Your task to perform on an android device: Play the new Bruno Mars video on YouTube Image 0: 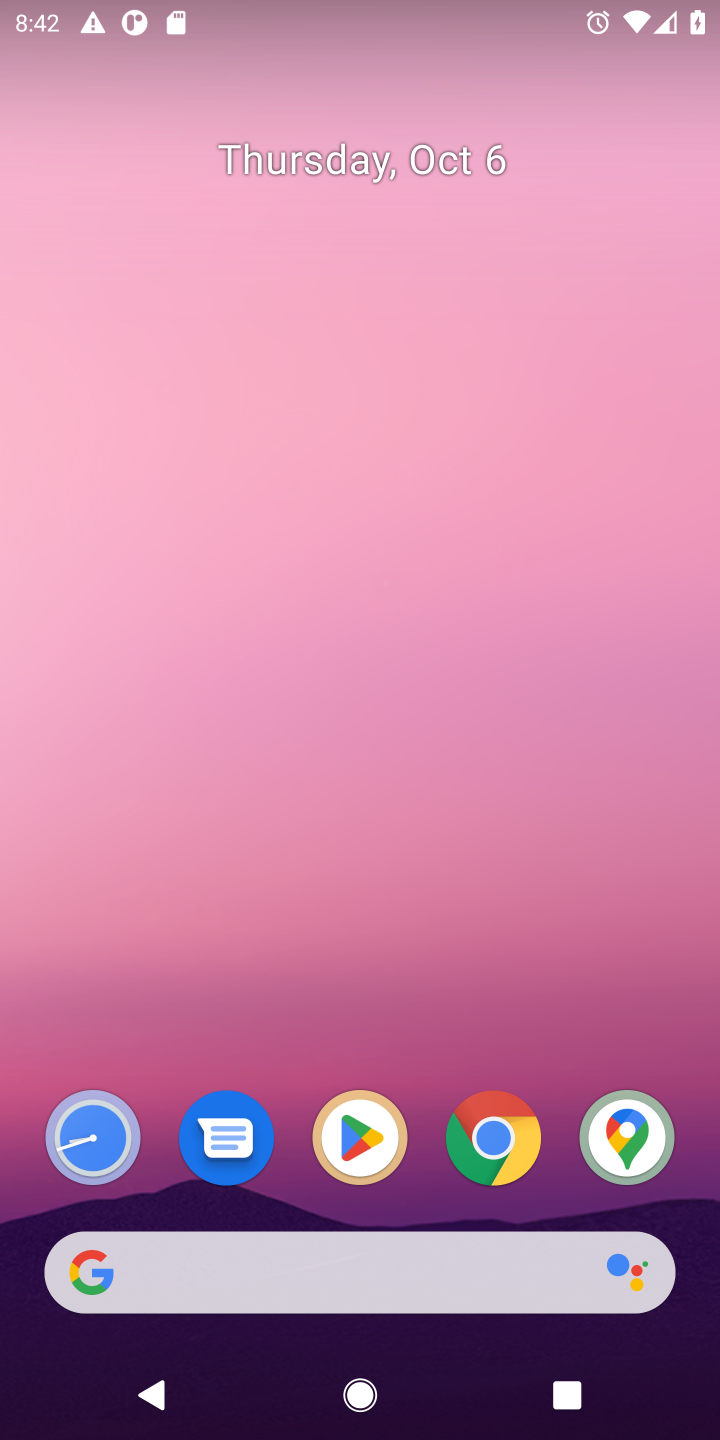
Step 0: drag from (284, 1179) to (426, 520)
Your task to perform on an android device: Play the new Bruno Mars video on YouTube Image 1: 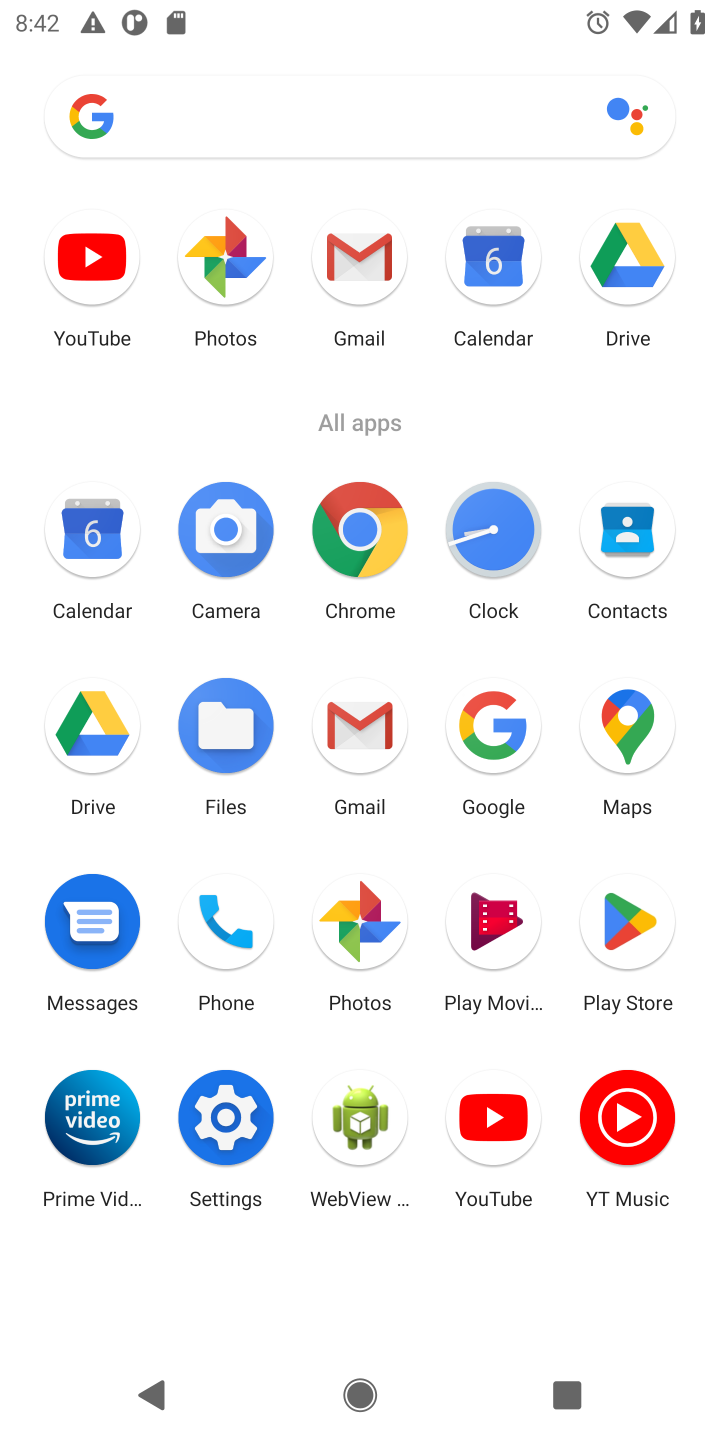
Step 1: click (101, 286)
Your task to perform on an android device: Play the new Bruno Mars video on YouTube Image 2: 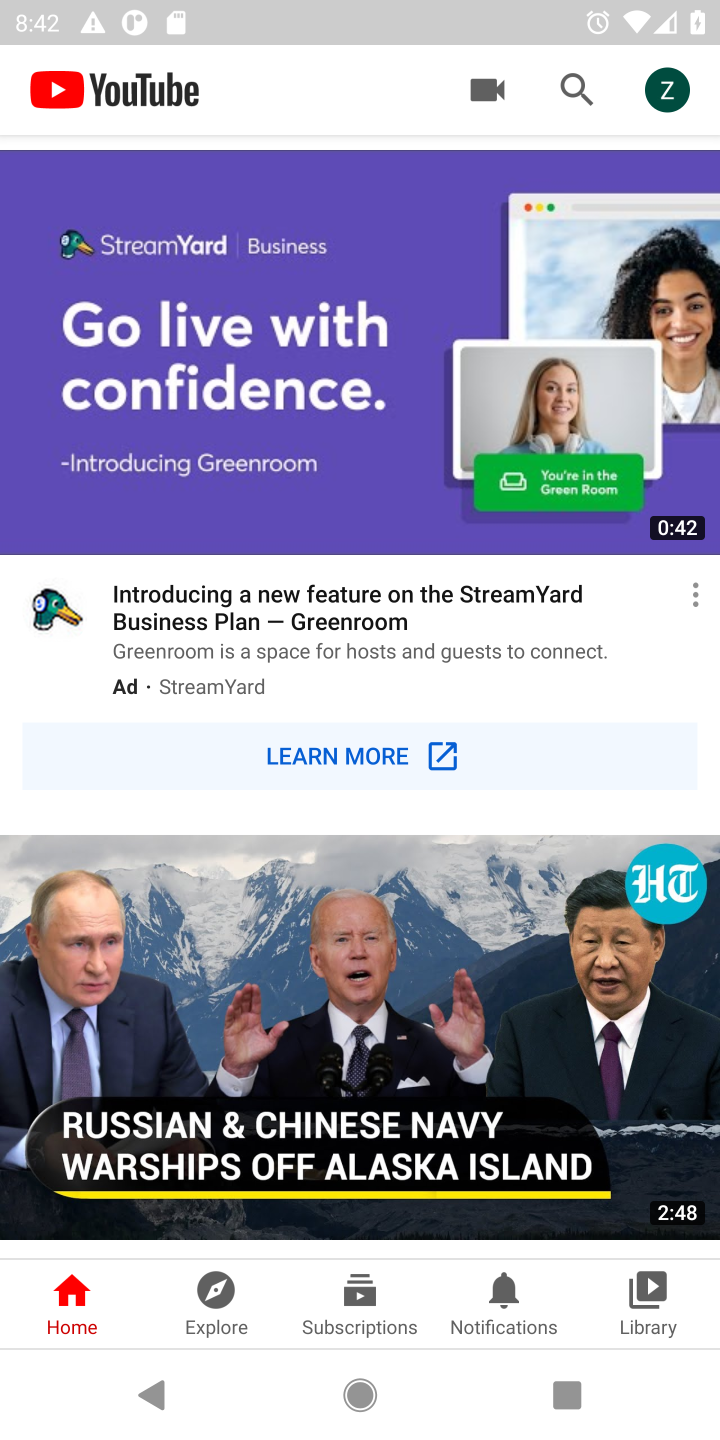
Step 2: click (574, 84)
Your task to perform on an android device: Play the new Bruno Mars video on YouTube Image 3: 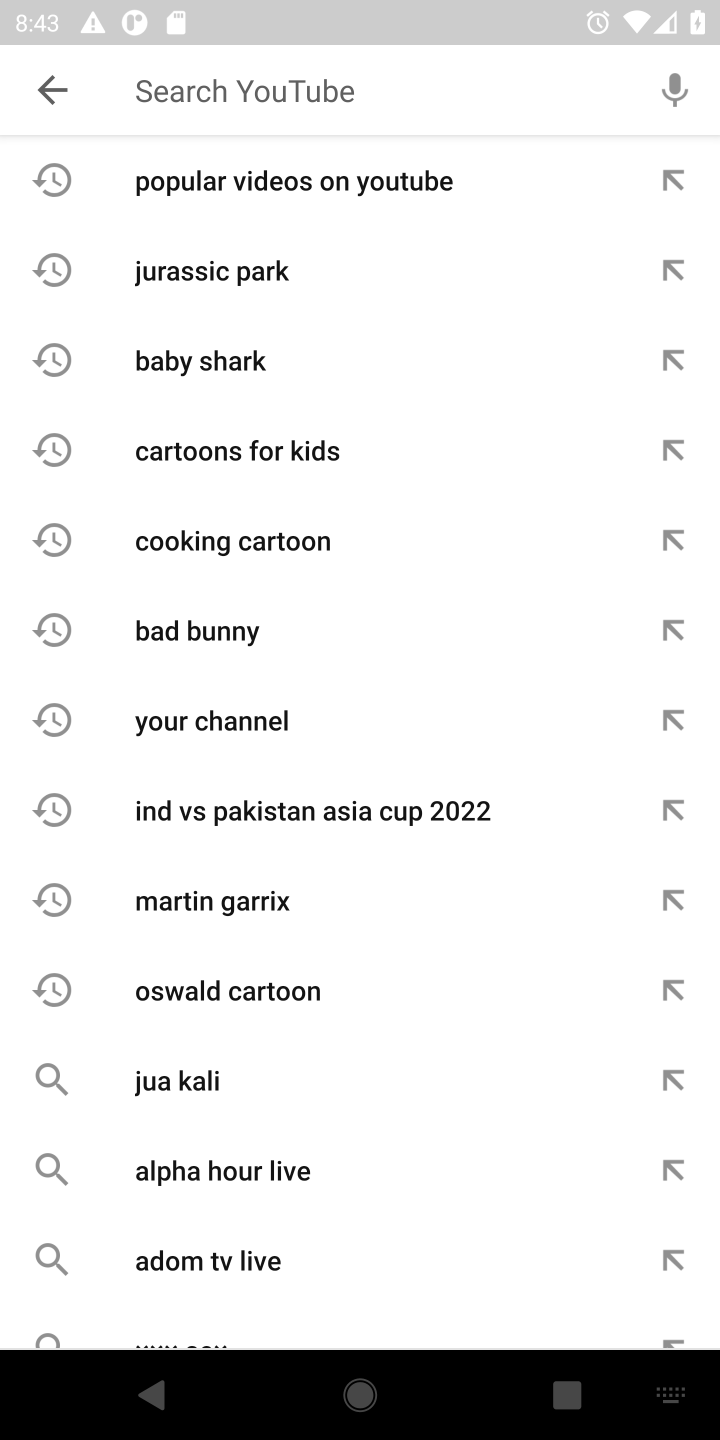
Step 3: type "bruno mars"
Your task to perform on an android device: Play the new Bruno Mars video on YouTube Image 4: 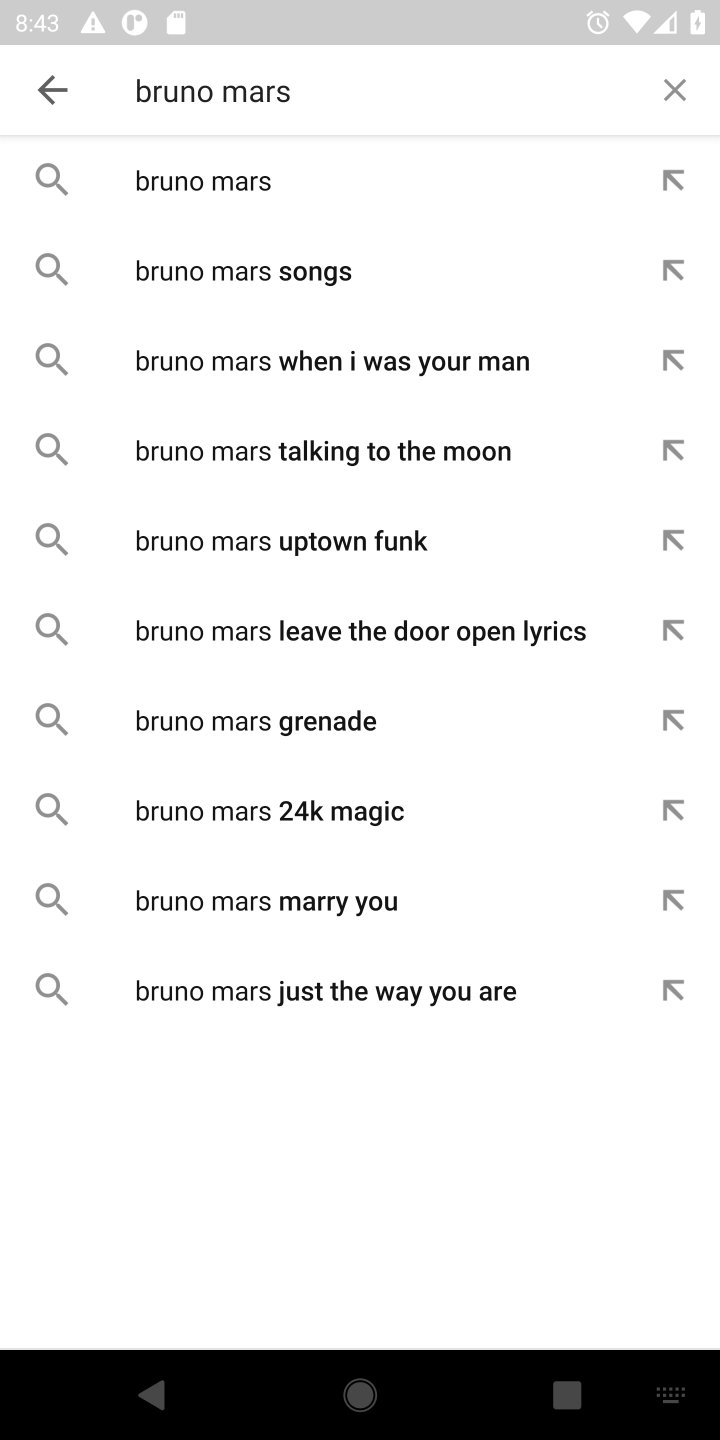
Step 4: click (167, 161)
Your task to perform on an android device: Play the new Bruno Mars video on YouTube Image 5: 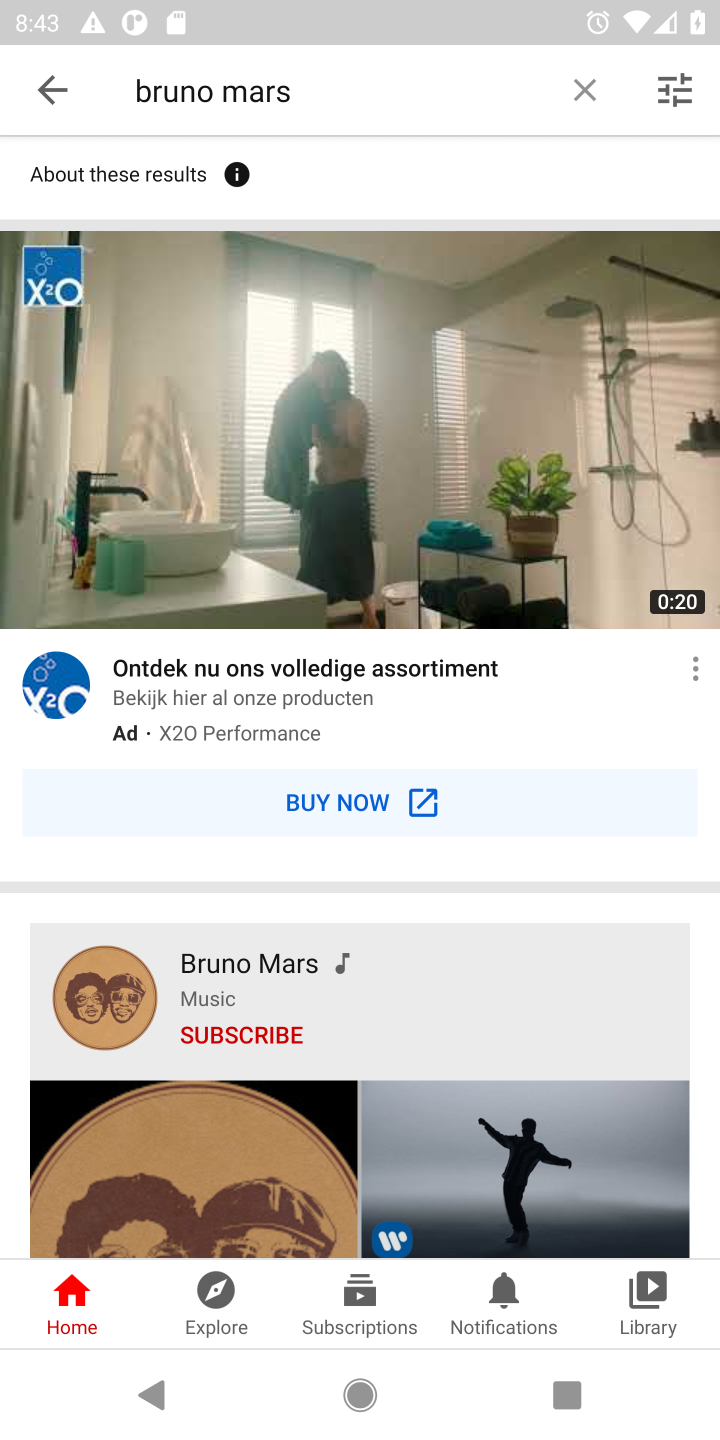
Step 5: click (232, 951)
Your task to perform on an android device: Play the new Bruno Mars video on YouTube Image 6: 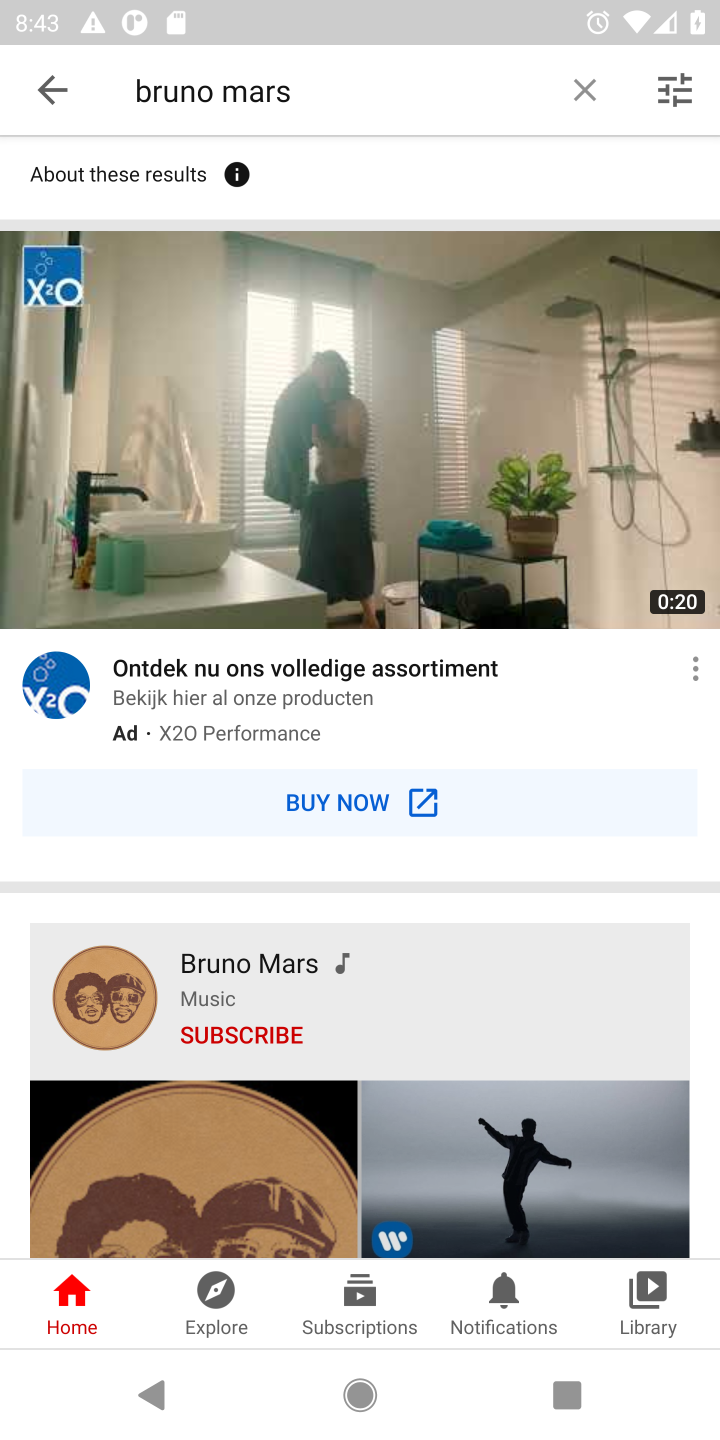
Step 6: drag from (193, 436) to (234, 36)
Your task to perform on an android device: Play the new Bruno Mars video on YouTube Image 7: 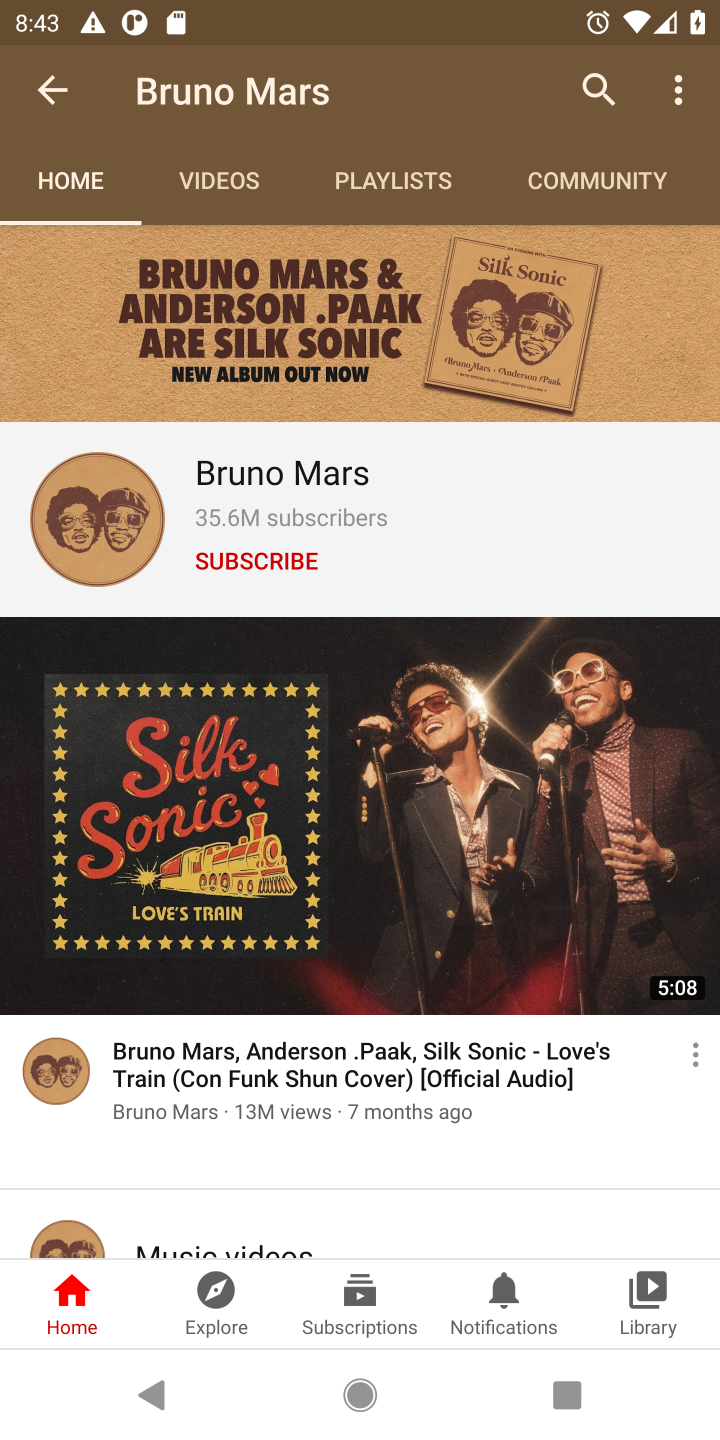
Step 7: click (519, 946)
Your task to perform on an android device: Play the new Bruno Mars video on YouTube Image 8: 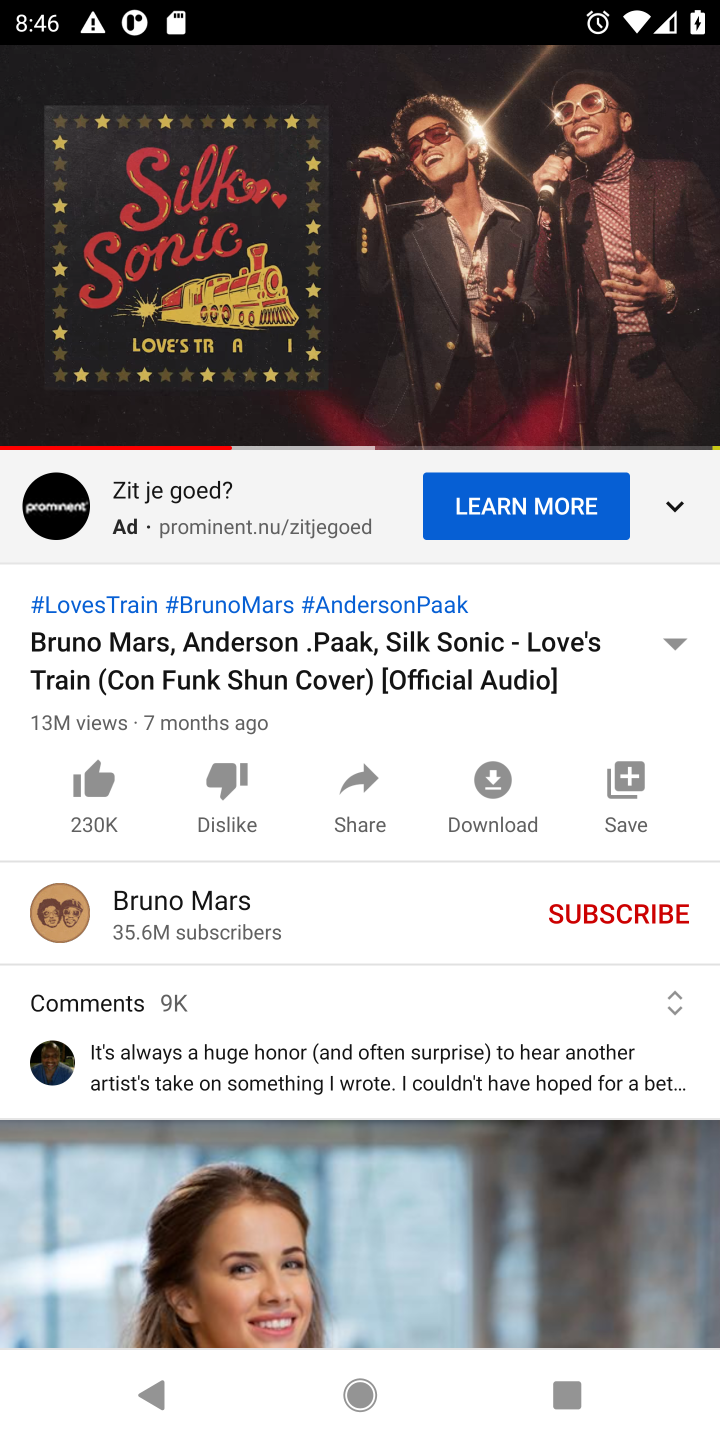
Step 8: task complete